Your task to perform on an android device: Check the latest 3D printers on Target. Image 0: 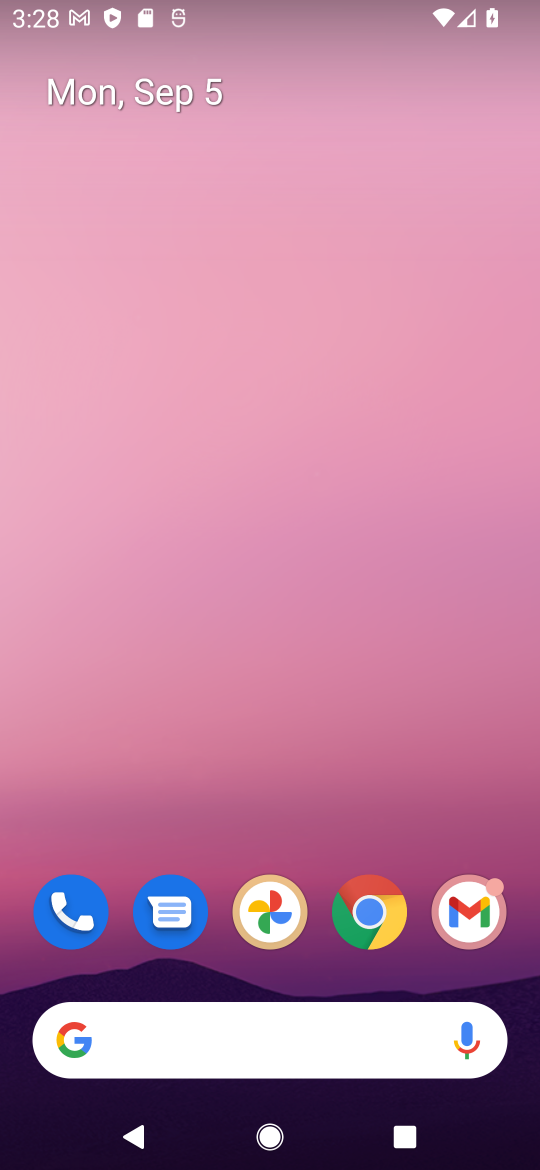
Step 0: click (373, 925)
Your task to perform on an android device: Check the latest 3D printers on Target. Image 1: 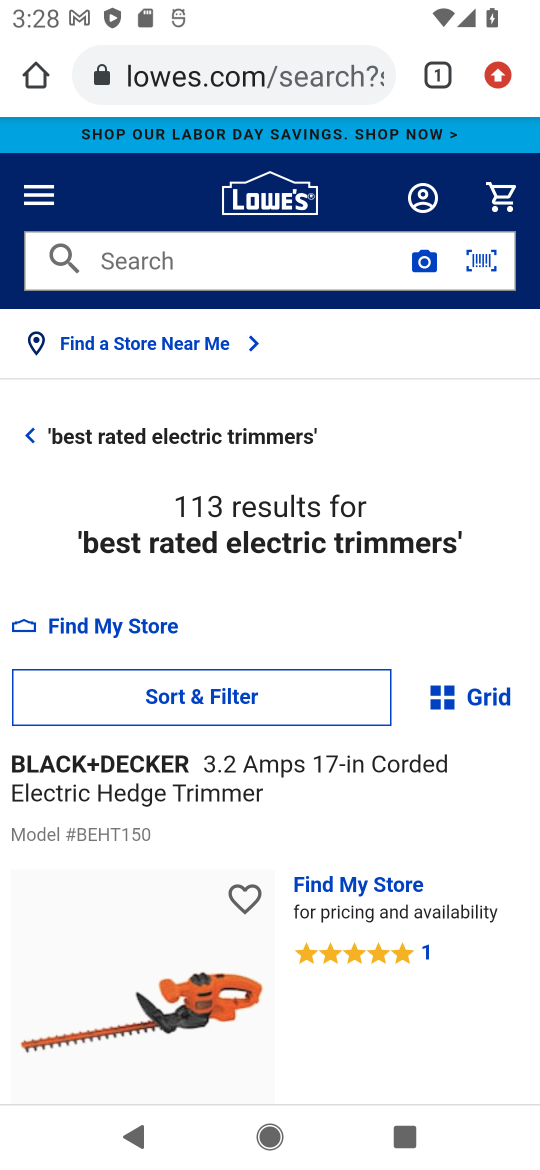
Step 1: click (243, 82)
Your task to perform on an android device: Check the latest 3D printers on Target. Image 2: 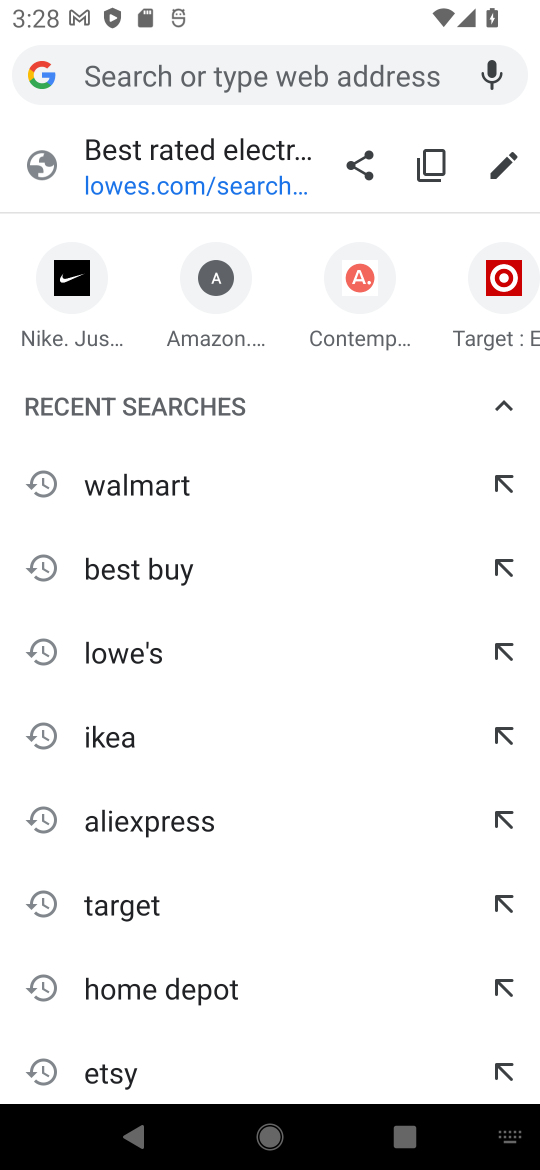
Step 2: type "target"
Your task to perform on an android device: Check the latest 3D printers on Target. Image 3: 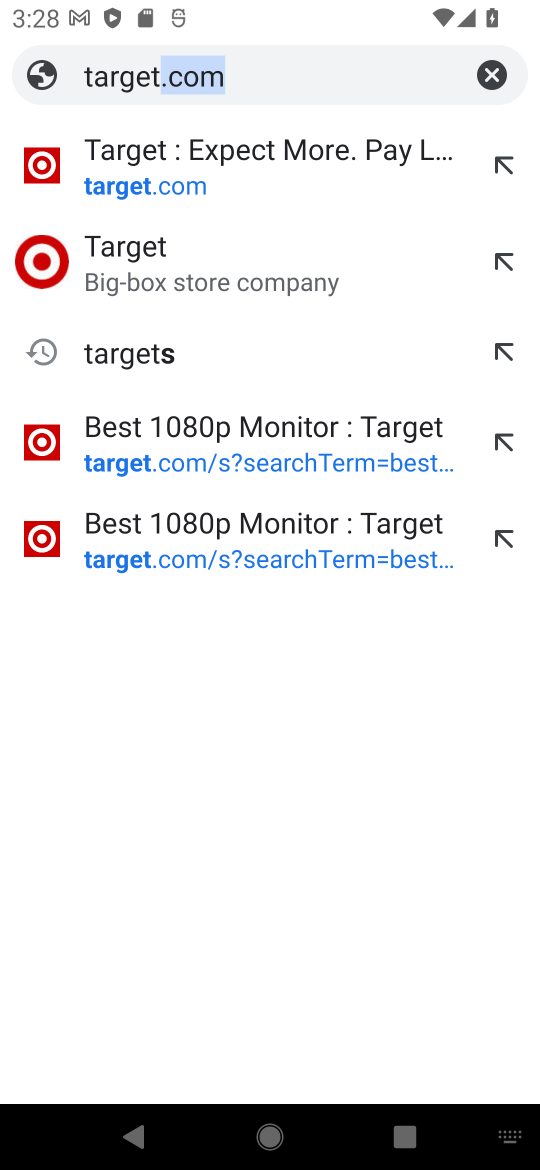
Step 3: press enter
Your task to perform on an android device: Check the latest 3D printers on Target. Image 4: 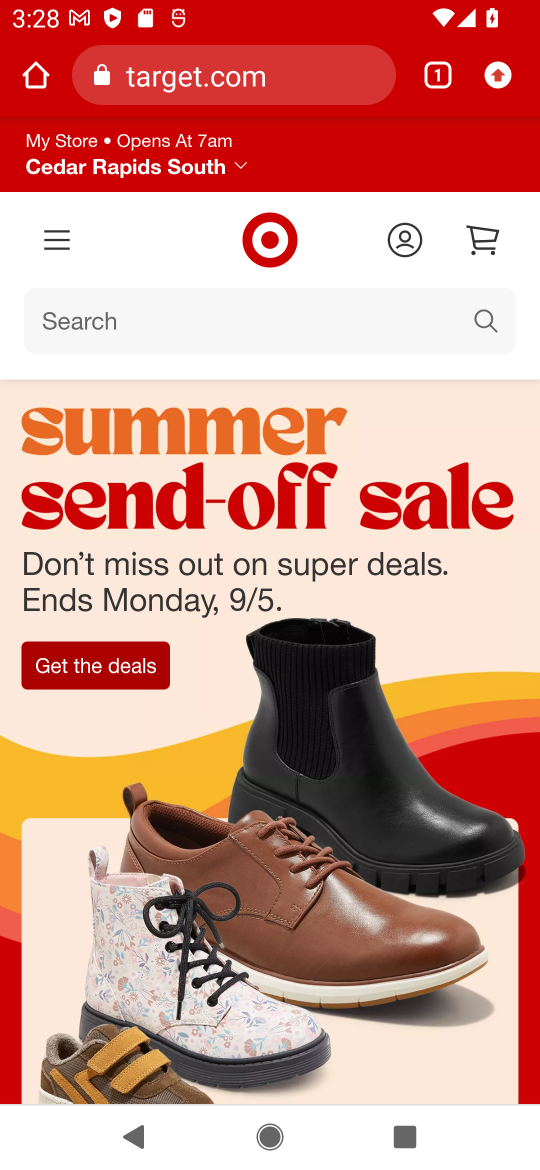
Step 4: click (140, 335)
Your task to perform on an android device: Check the latest 3D printers on Target. Image 5: 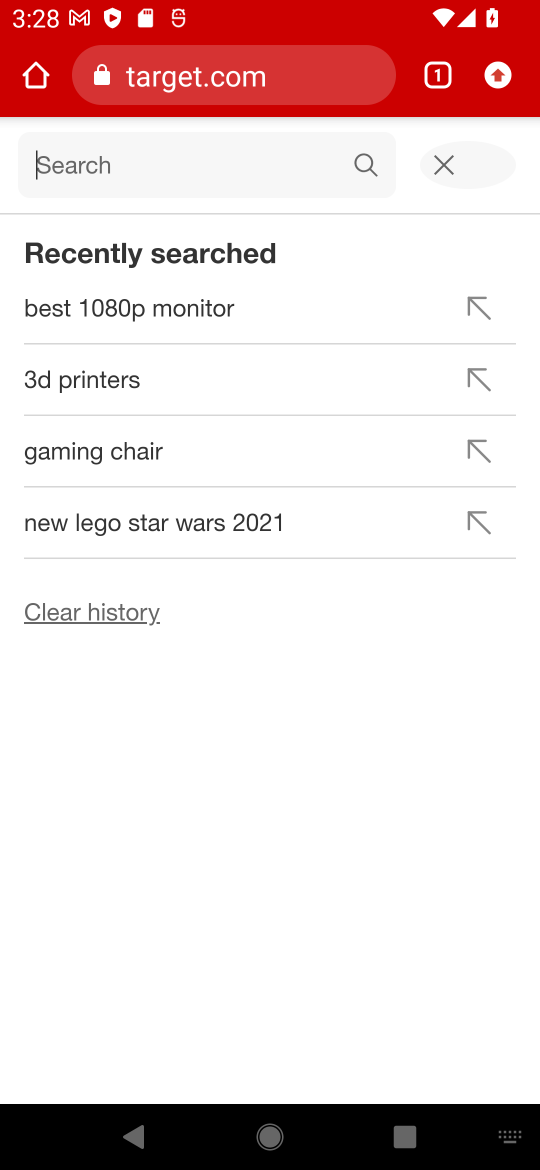
Step 5: type "latest 3D printers"
Your task to perform on an android device: Check the latest 3D printers on Target. Image 6: 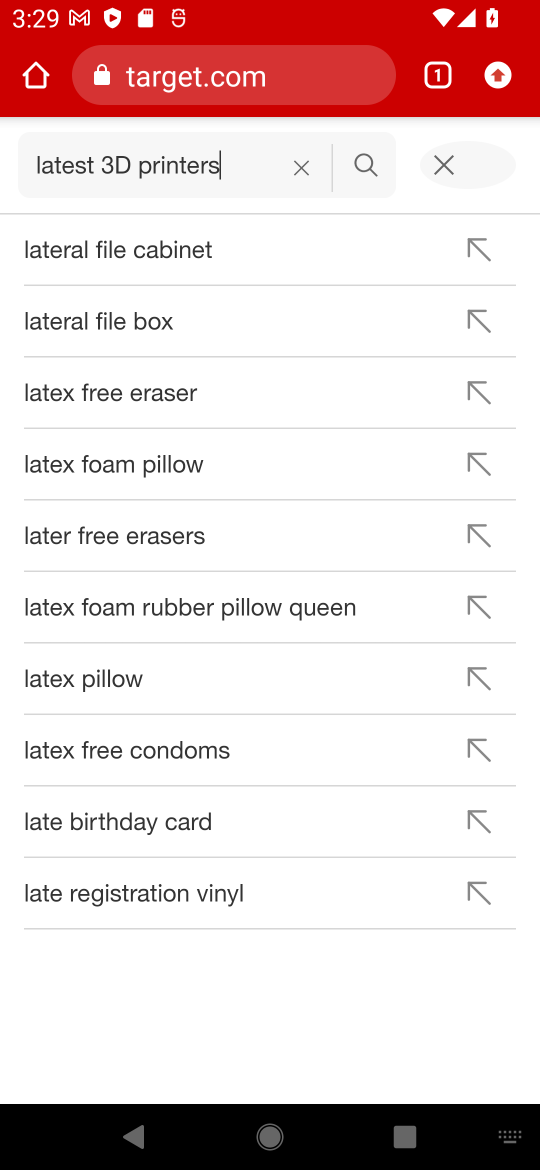
Step 6: press enter
Your task to perform on an android device: Check the latest 3D printers on Target. Image 7: 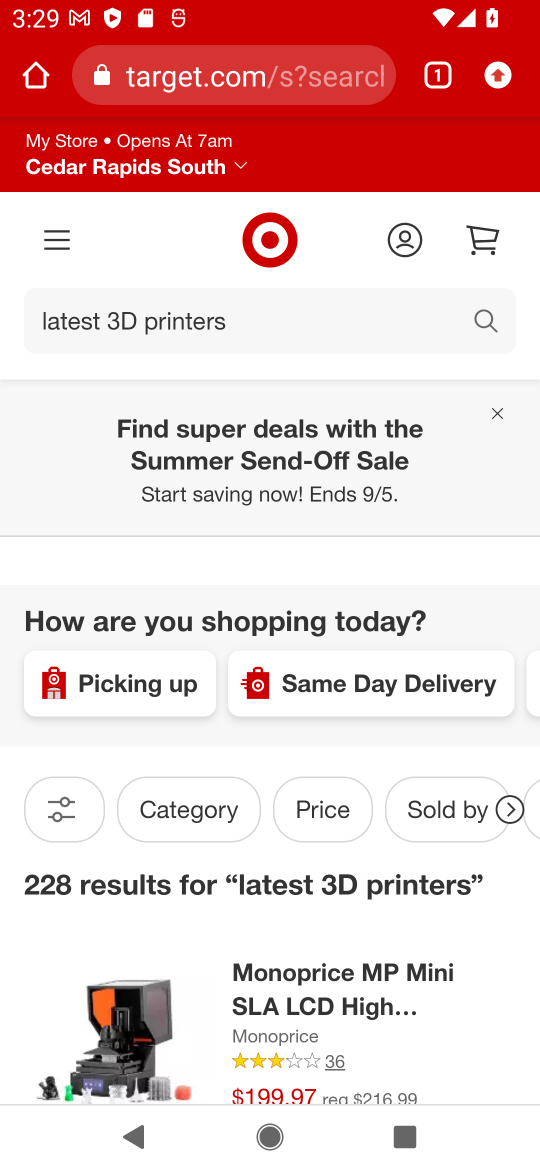
Step 7: click (59, 803)
Your task to perform on an android device: Check the latest 3D printers on Target. Image 8: 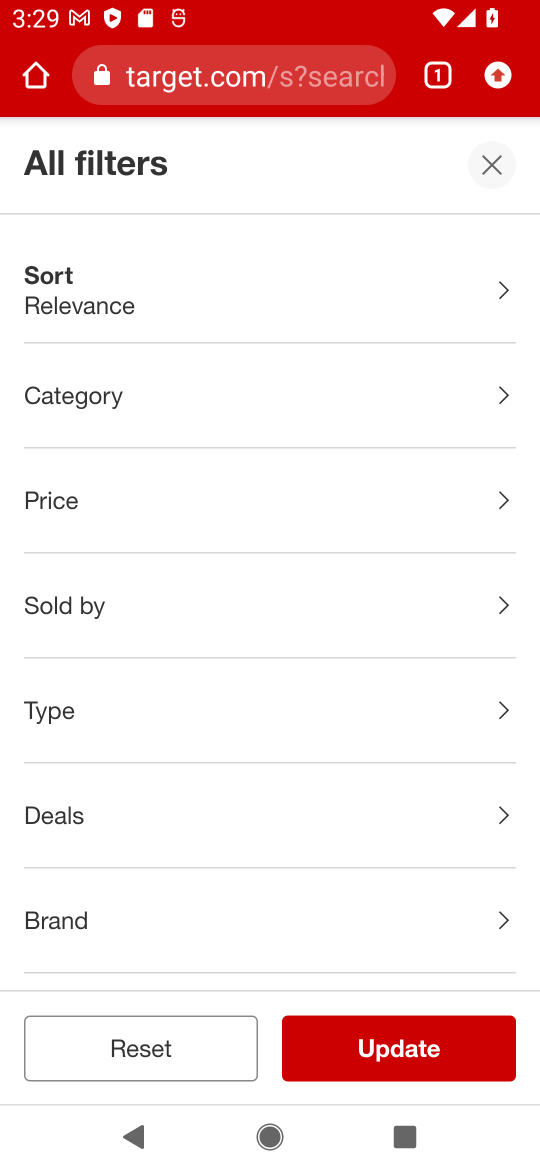
Step 8: click (438, 281)
Your task to perform on an android device: Check the latest 3D printers on Target. Image 9: 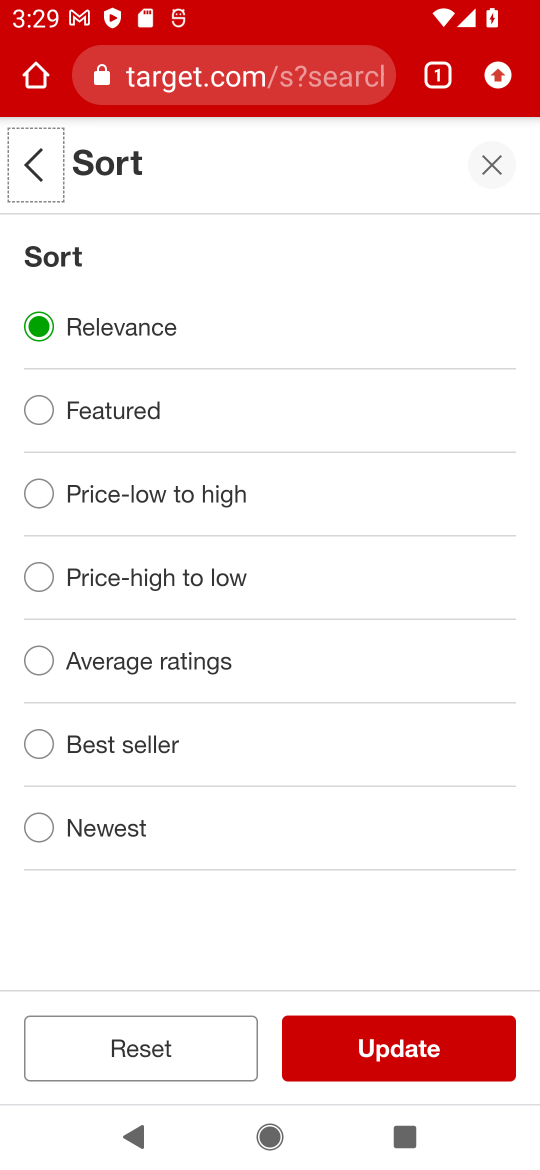
Step 9: click (87, 815)
Your task to perform on an android device: Check the latest 3D printers on Target. Image 10: 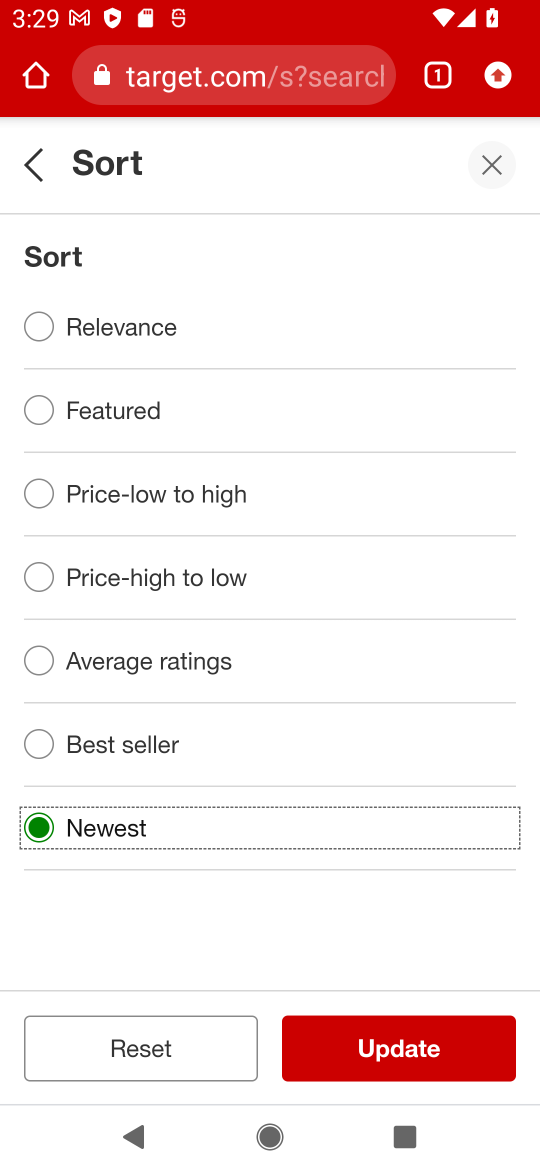
Step 10: click (344, 1050)
Your task to perform on an android device: Check the latest 3D printers on Target. Image 11: 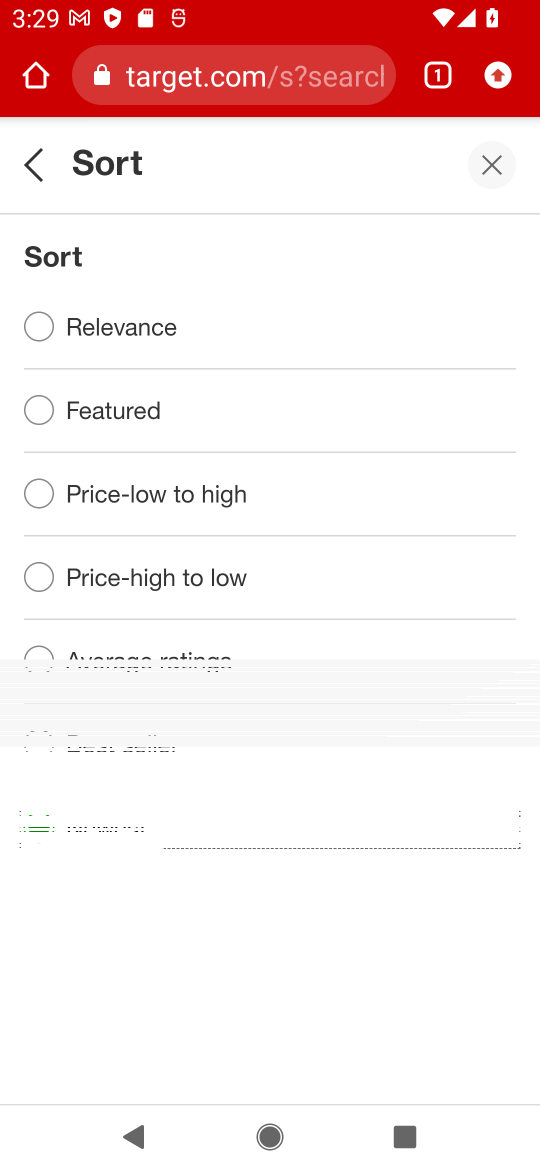
Step 11: drag from (219, 590) to (209, 422)
Your task to perform on an android device: Check the latest 3D printers on Target. Image 12: 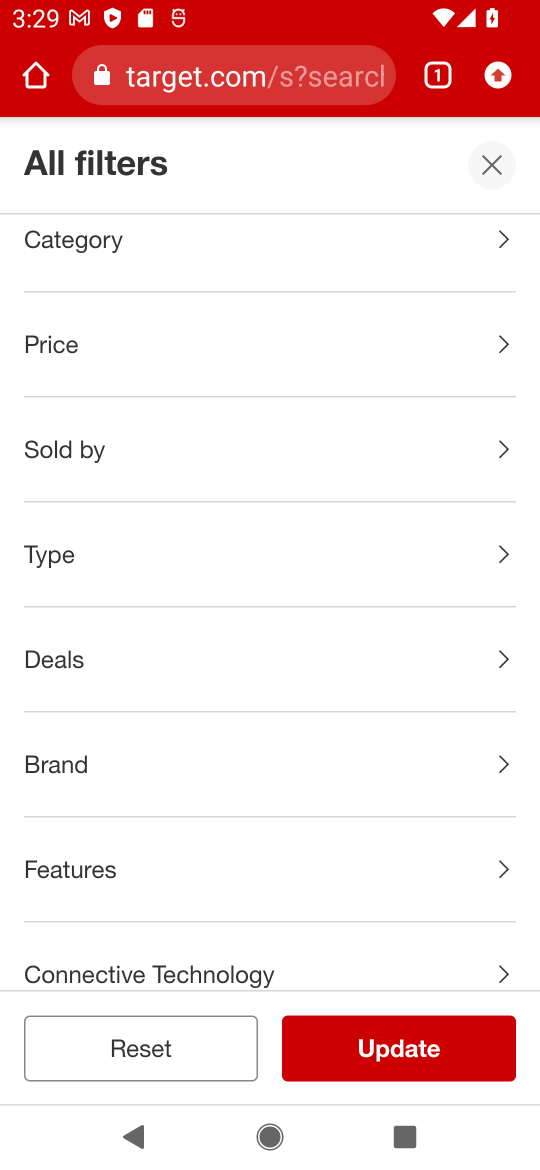
Step 12: drag from (259, 415) to (292, 659)
Your task to perform on an android device: Check the latest 3D printers on Target. Image 13: 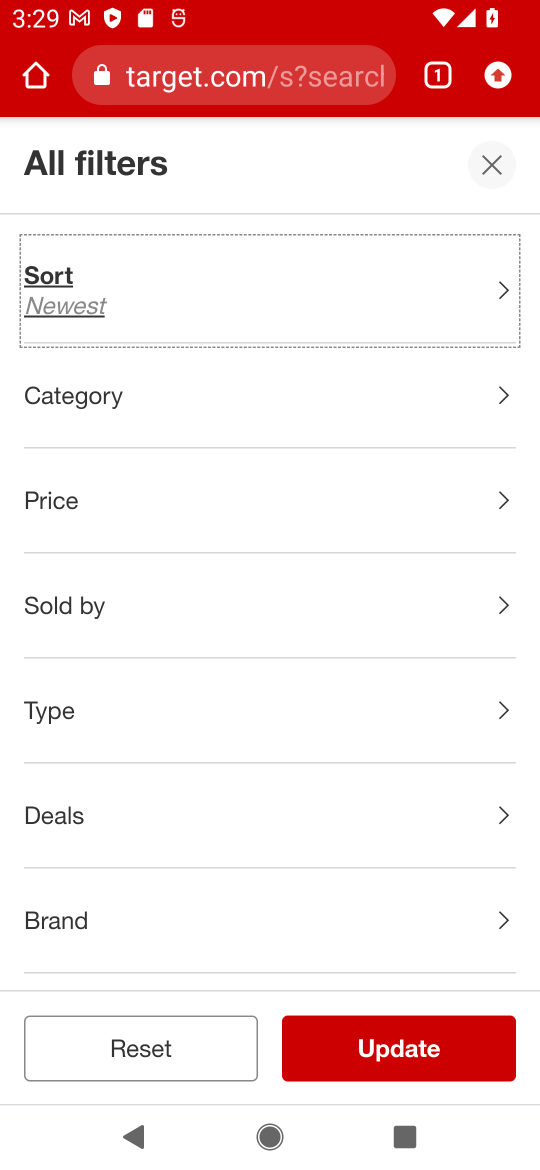
Step 13: click (439, 1066)
Your task to perform on an android device: Check the latest 3D printers on Target. Image 14: 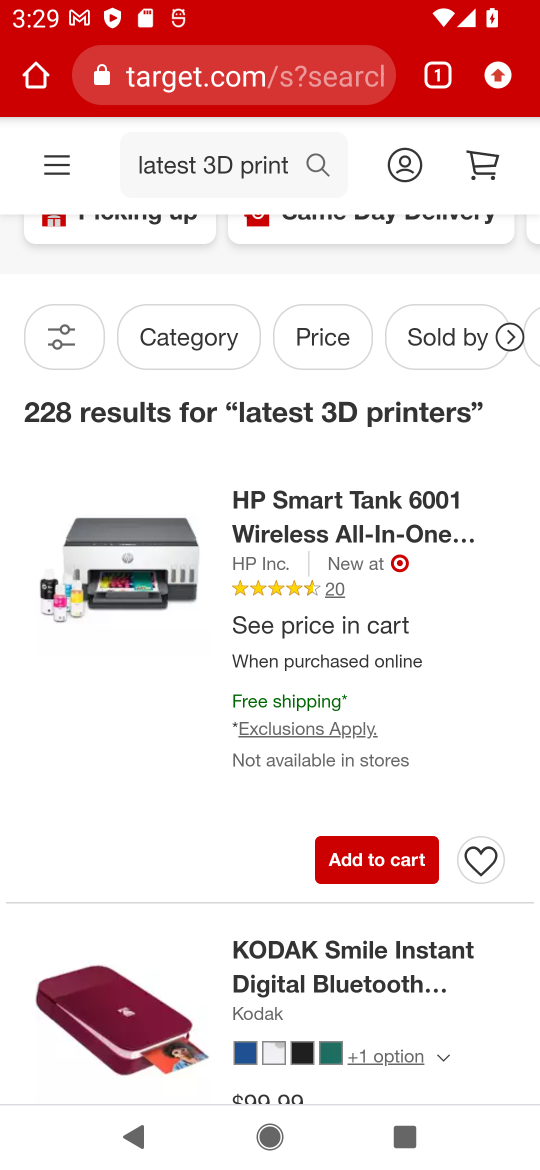
Step 14: task complete